Your task to perform on an android device: turn off wifi Image 0: 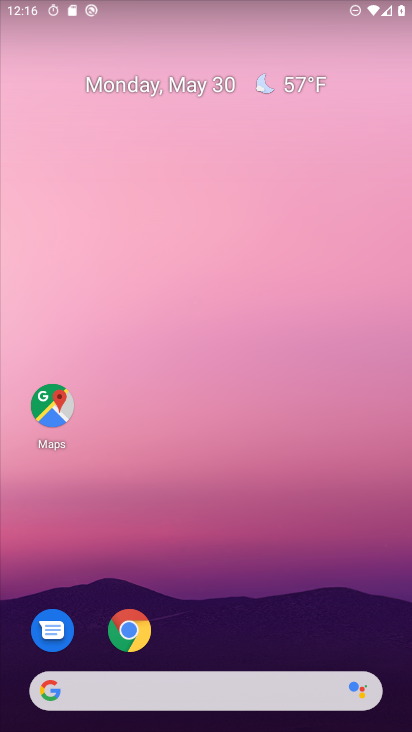
Step 0: drag from (273, 694) to (197, 283)
Your task to perform on an android device: turn off wifi Image 1: 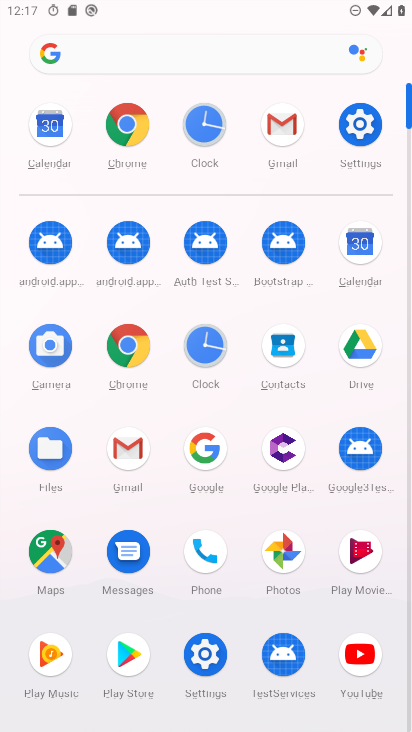
Step 1: click (345, 140)
Your task to perform on an android device: turn off wifi Image 2: 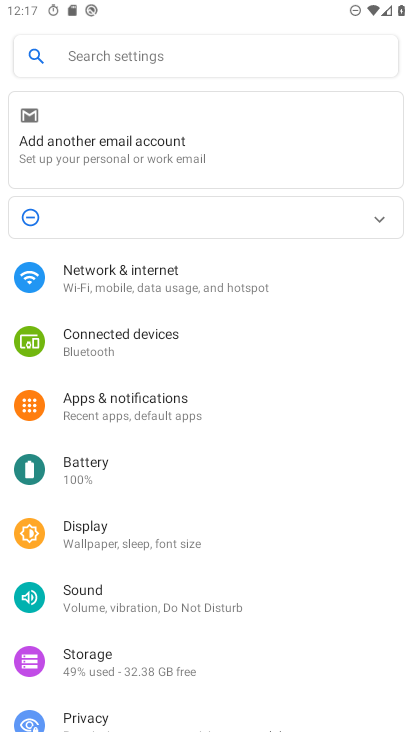
Step 2: click (101, 275)
Your task to perform on an android device: turn off wifi Image 3: 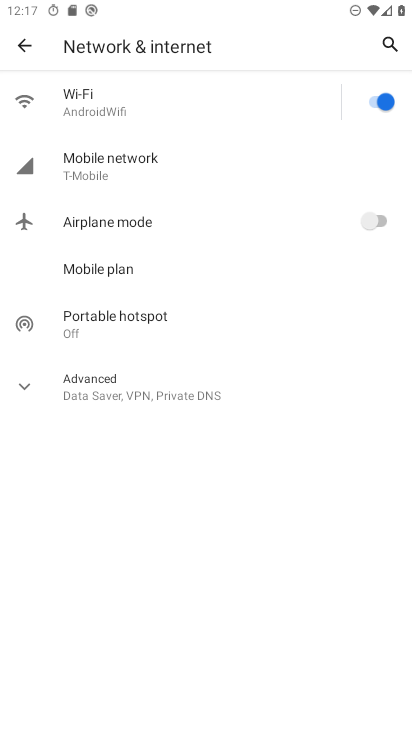
Step 3: click (125, 98)
Your task to perform on an android device: turn off wifi Image 4: 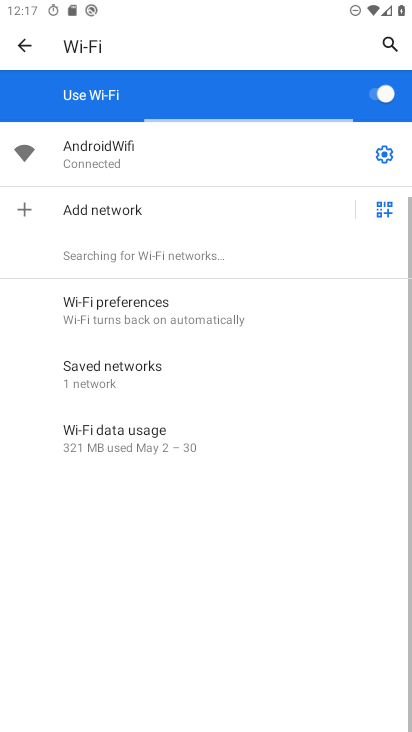
Step 4: click (383, 98)
Your task to perform on an android device: turn off wifi Image 5: 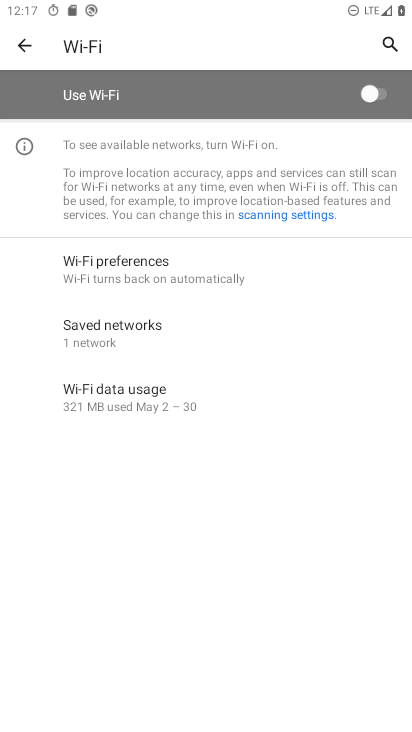
Step 5: task complete